Your task to perform on an android device: turn pop-ups on in chrome Image 0: 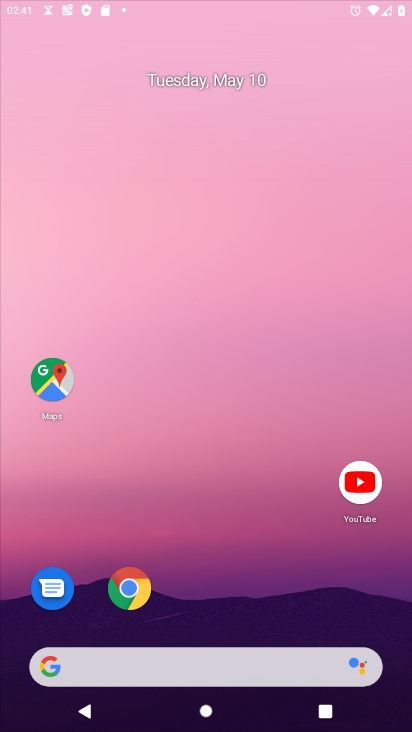
Step 0: drag from (225, 564) to (189, 9)
Your task to perform on an android device: turn pop-ups on in chrome Image 1: 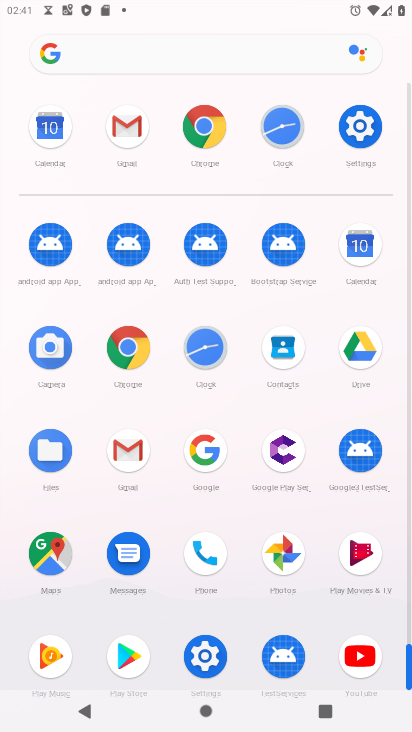
Step 1: click (199, 119)
Your task to perform on an android device: turn pop-ups on in chrome Image 2: 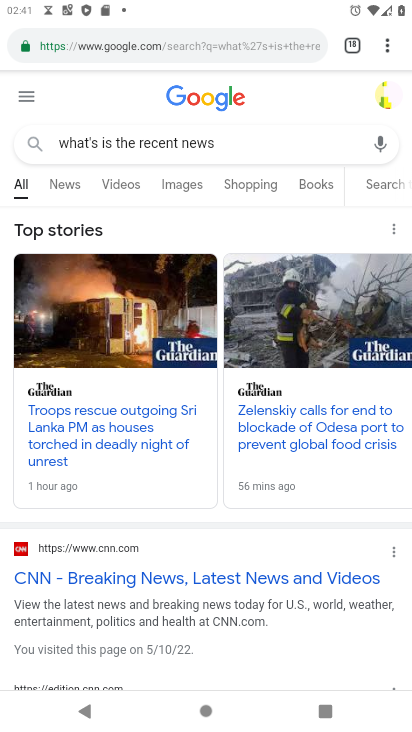
Step 2: click (384, 51)
Your task to perform on an android device: turn pop-ups on in chrome Image 3: 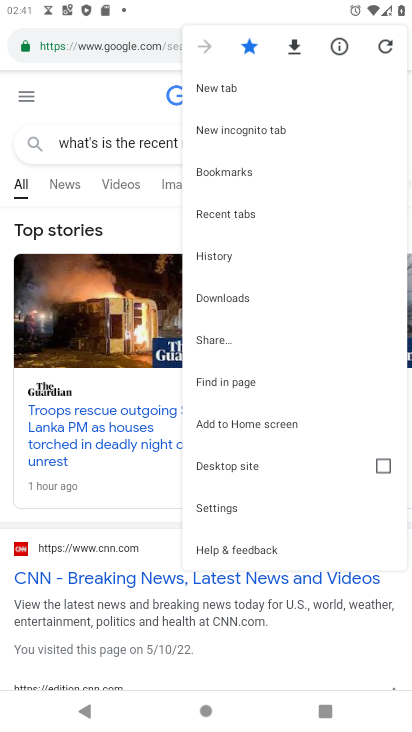
Step 3: click (240, 83)
Your task to perform on an android device: turn pop-ups on in chrome Image 4: 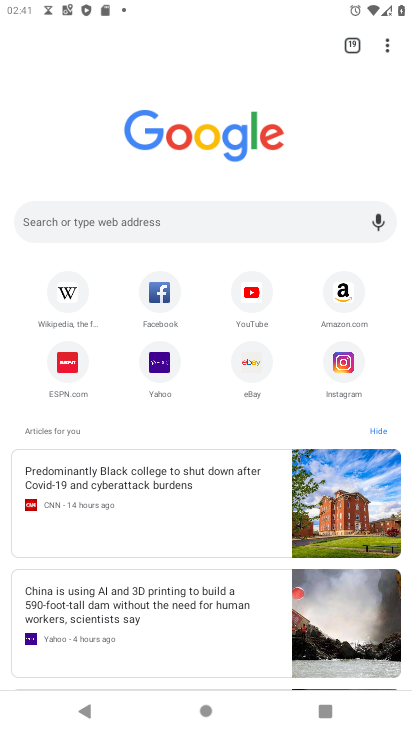
Step 4: click (344, 294)
Your task to perform on an android device: turn pop-ups on in chrome Image 5: 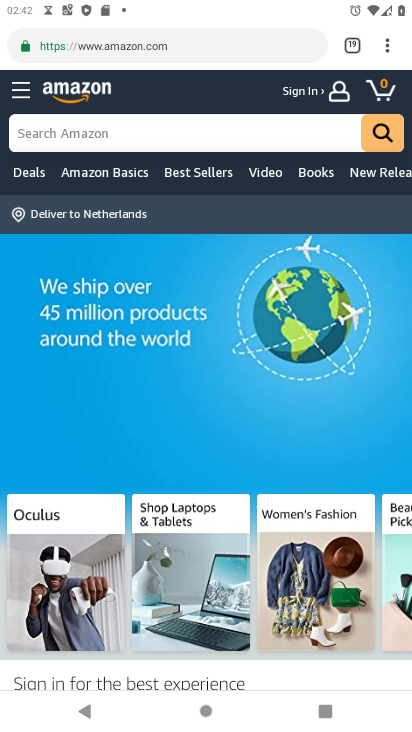
Step 5: press home button
Your task to perform on an android device: turn pop-ups on in chrome Image 6: 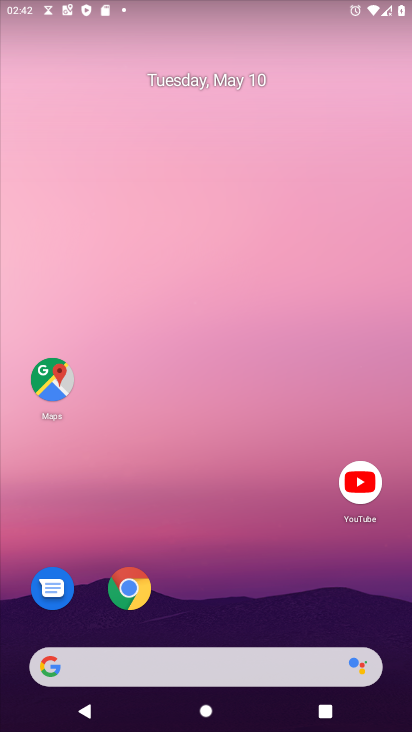
Step 6: drag from (243, 578) to (209, 116)
Your task to perform on an android device: turn pop-ups on in chrome Image 7: 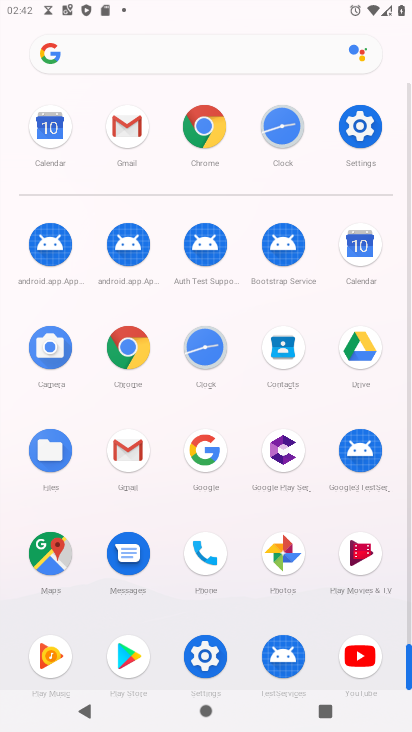
Step 7: click (349, 127)
Your task to perform on an android device: turn pop-ups on in chrome Image 8: 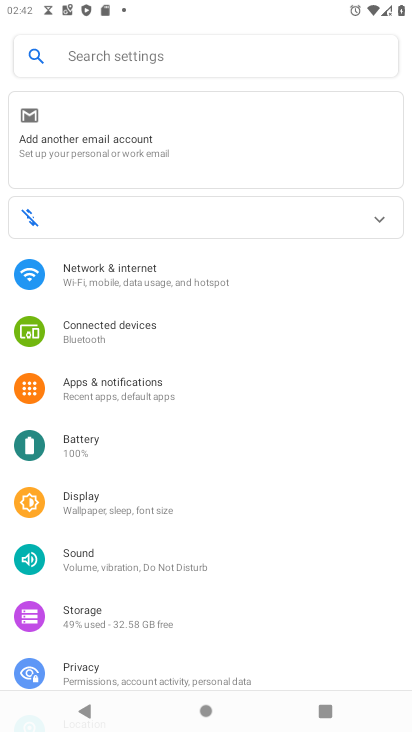
Step 8: press home button
Your task to perform on an android device: turn pop-ups on in chrome Image 9: 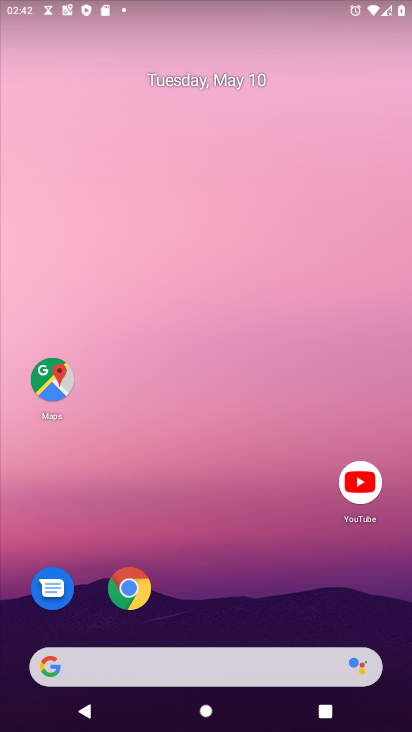
Step 9: click (126, 596)
Your task to perform on an android device: turn pop-ups on in chrome Image 10: 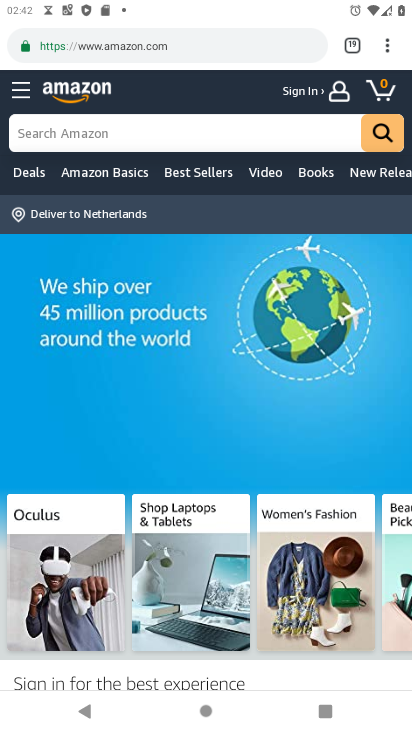
Step 10: click (388, 43)
Your task to perform on an android device: turn pop-ups on in chrome Image 11: 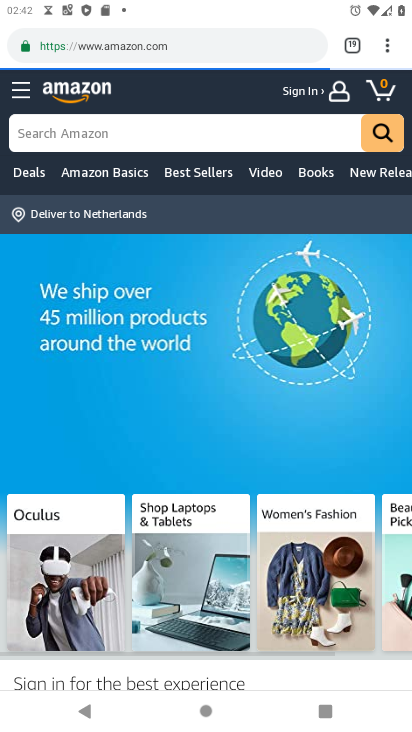
Step 11: click (378, 45)
Your task to perform on an android device: turn pop-ups on in chrome Image 12: 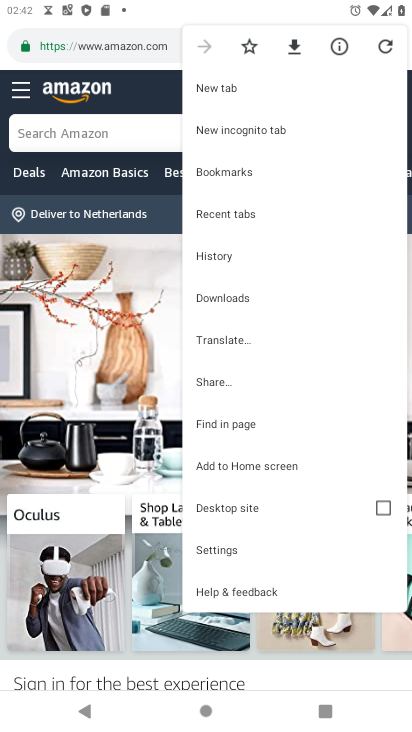
Step 12: click (214, 549)
Your task to perform on an android device: turn pop-ups on in chrome Image 13: 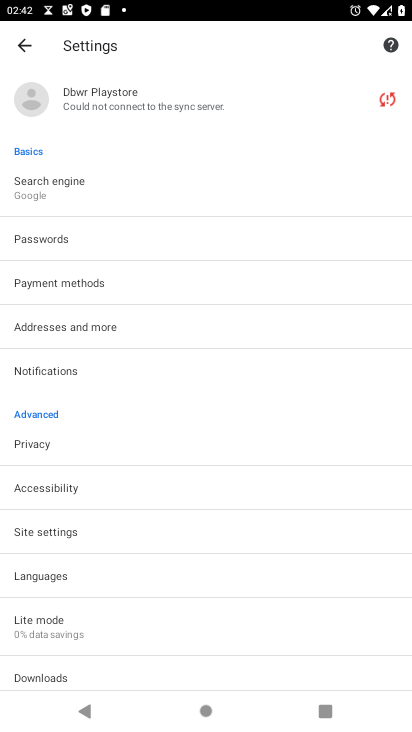
Step 13: click (109, 528)
Your task to perform on an android device: turn pop-ups on in chrome Image 14: 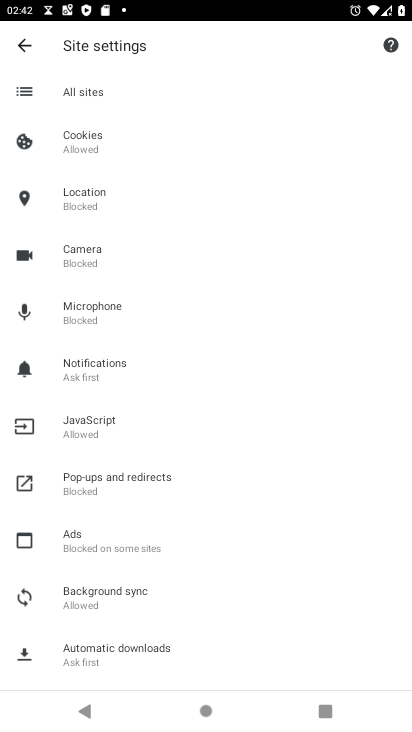
Step 14: click (117, 483)
Your task to perform on an android device: turn pop-ups on in chrome Image 15: 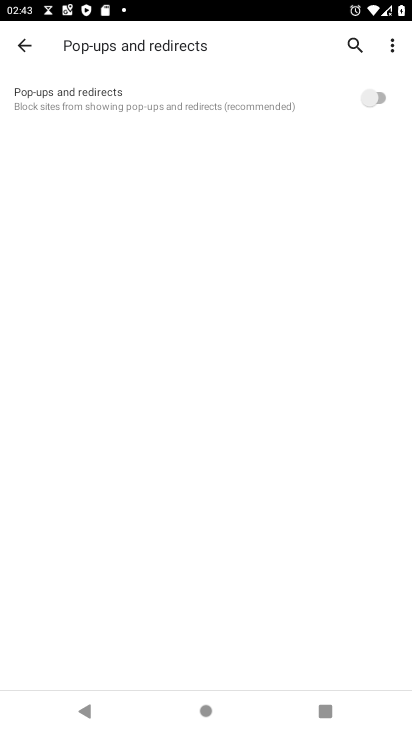
Step 15: click (377, 98)
Your task to perform on an android device: turn pop-ups on in chrome Image 16: 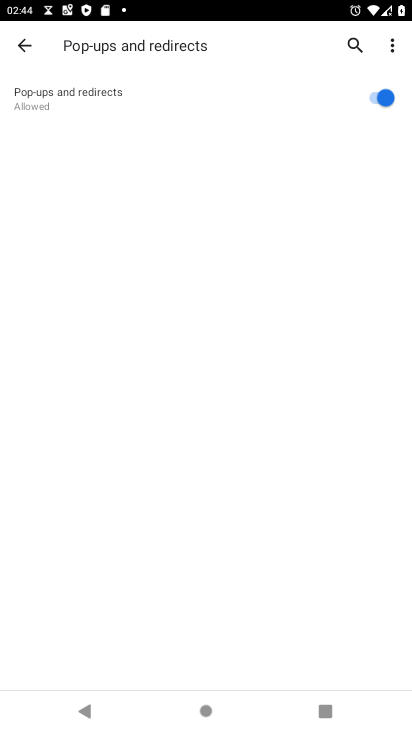
Step 16: task complete